Your task to perform on an android device: snooze an email in the gmail app Image 0: 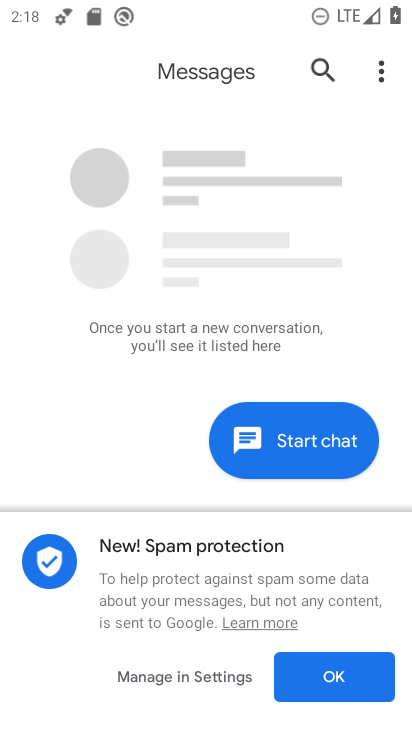
Step 0: press home button
Your task to perform on an android device: snooze an email in the gmail app Image 1: 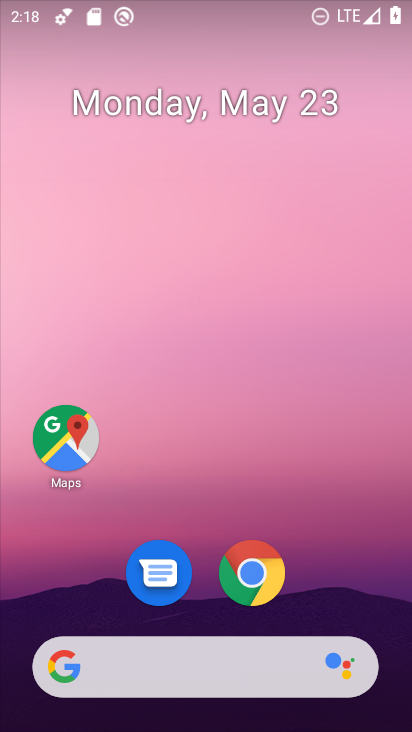
Step 1: drag from (306, 567) to (344, 194)
Your task to perform on an android device: snooze an email in the gmail app Image 2: 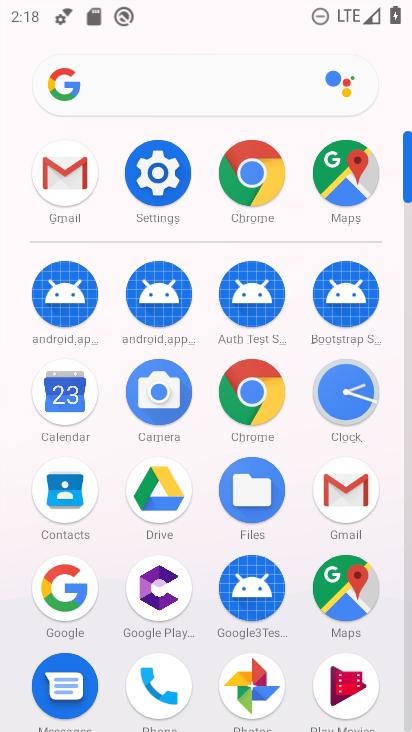
Step 2: click (40, 171)
Your task to perform on an android device: snooze an email in the gmail app Image 3: 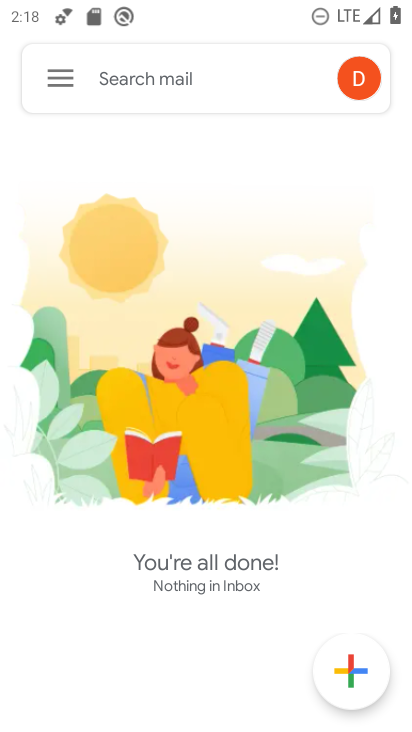
Step 3: click (54, 66)
Your task to perform on an android device: snooze an email in the gmail app Image 4: 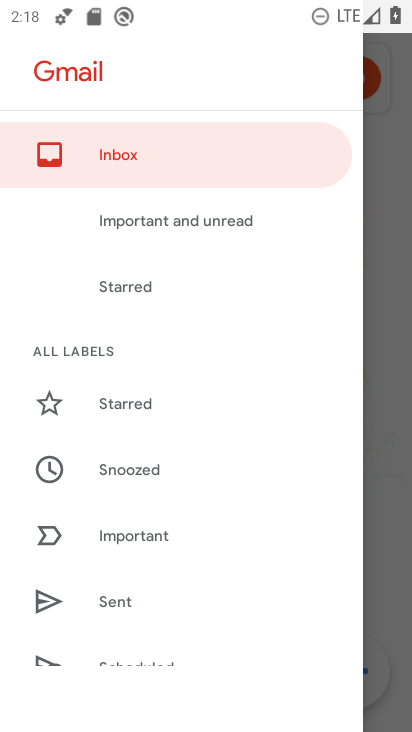
Step 4: drag from (134, 512) to (212, 172)
Your task to perform on an android device: snooze an email in the gmail app Image 5: 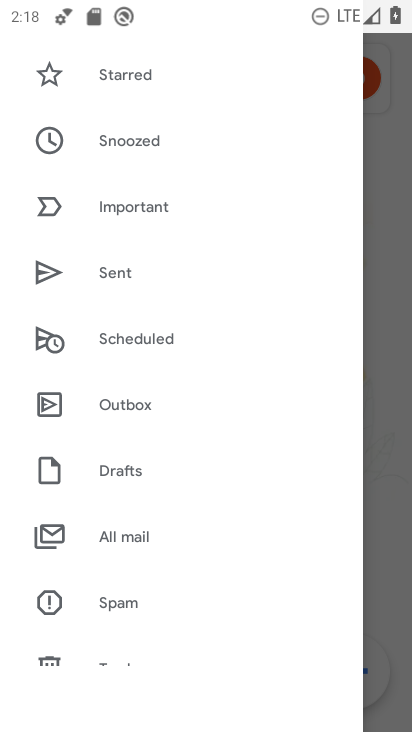
Step 5: click (127, 523)
Your task to perform on an android device: snooze an email in the gmail app Image 6: 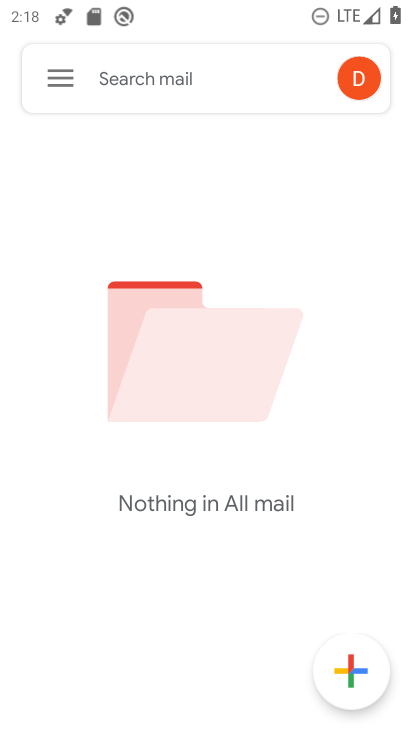
Step 6: task complete